Your task to perform on an android device: Search for a new lipgloss Image 0: 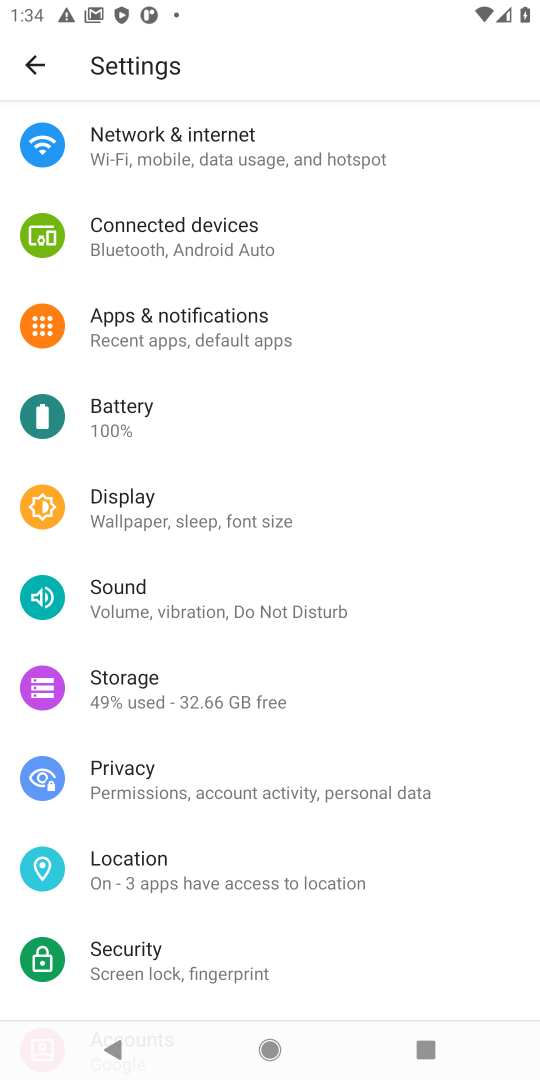
Step 0: press home button
Your task to perform on an android device: Search for a new lipgloss Image 1: 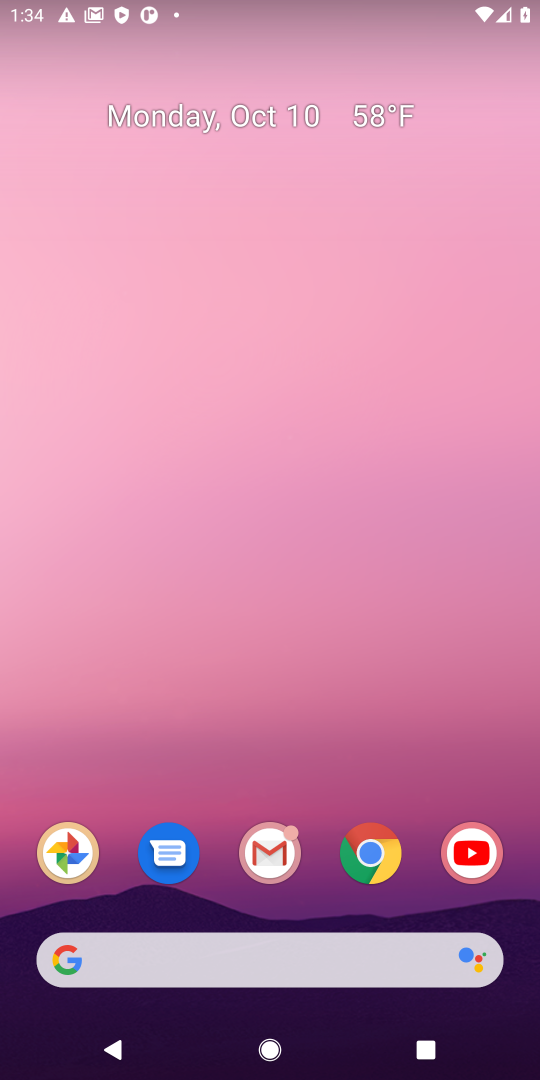
Step 1: click (364, 862)
Your task to perform on an android device: Search for a new lipgloss Image 2: 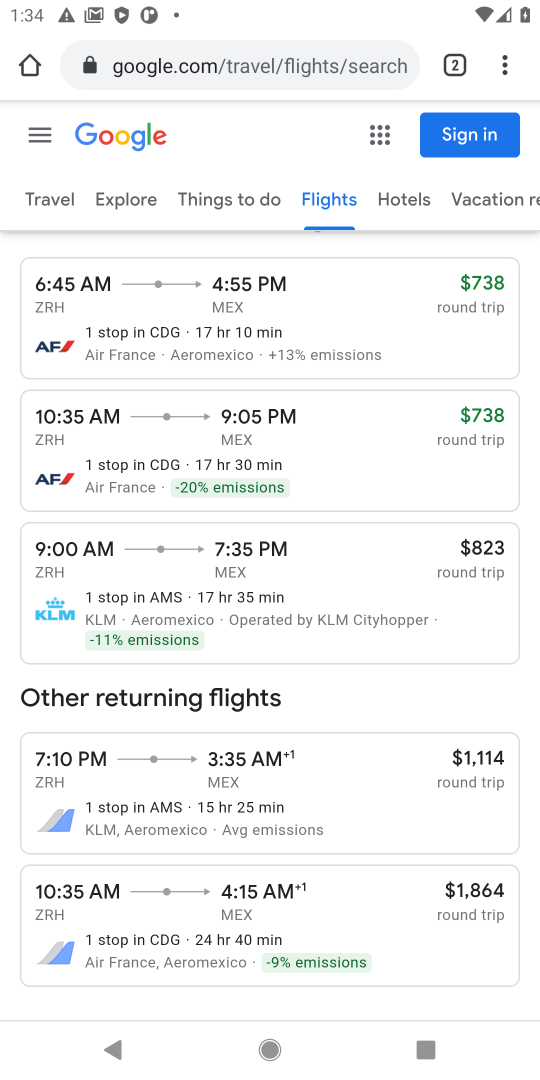
Step 2: click (275, 69)
Your task to perform on an android device: Search for a new lipgloss Image 3: 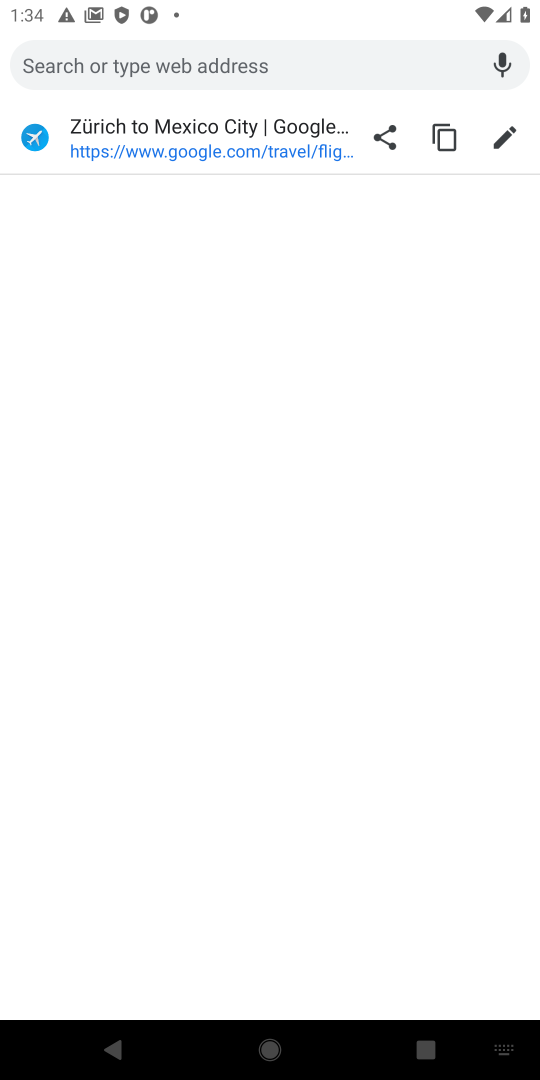
Step 3: type "new lipgloss"
Your task to perform on an android device: Search for a new lipgloss Image 4: 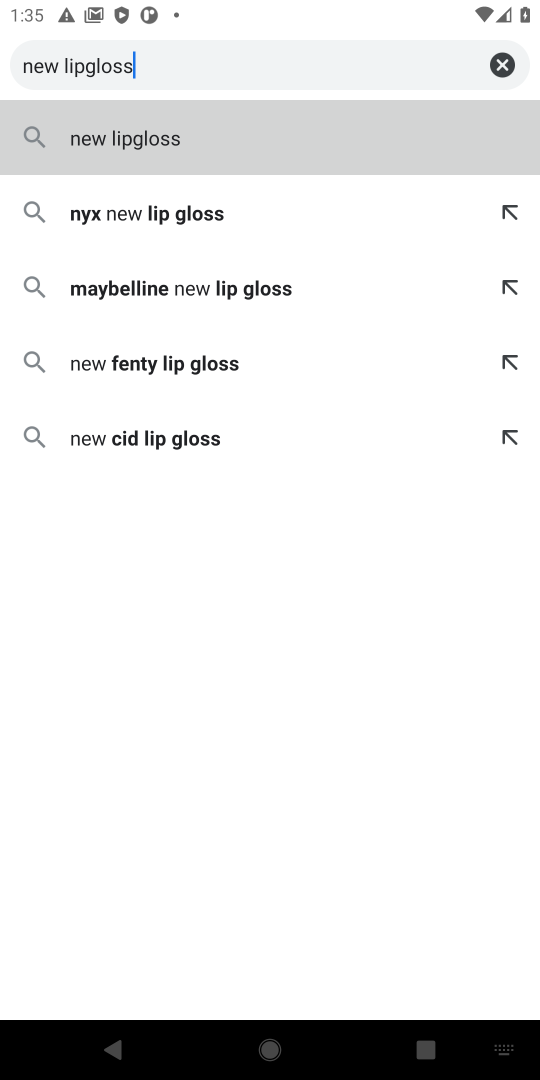
Step 4: click (128, 130)
Your task to perform on an android device: Search for a new lipgloss Image 5: 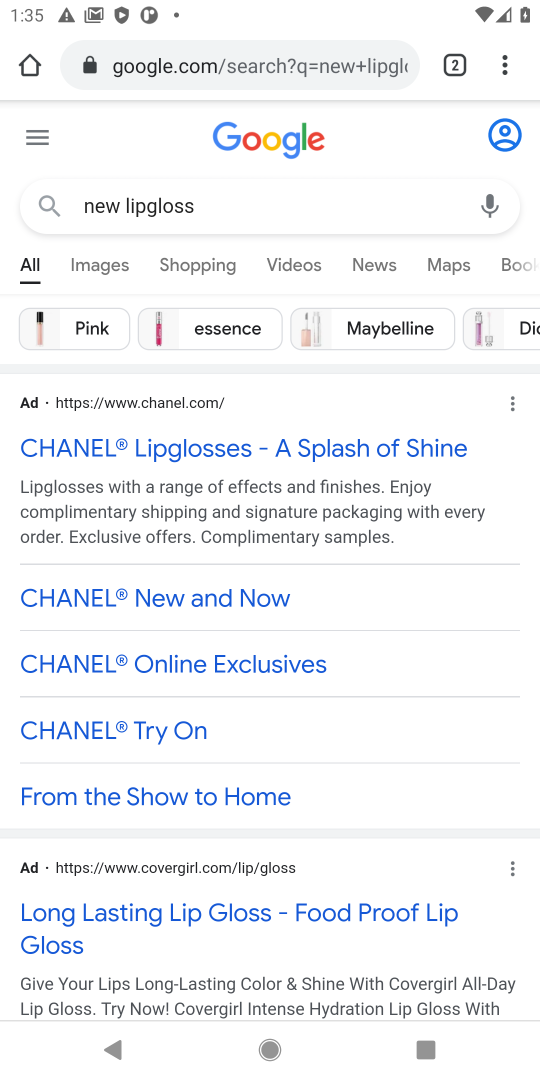
Step 5: task complete